Your task to perform on an android device: find which apps use the phone's location Image 0: 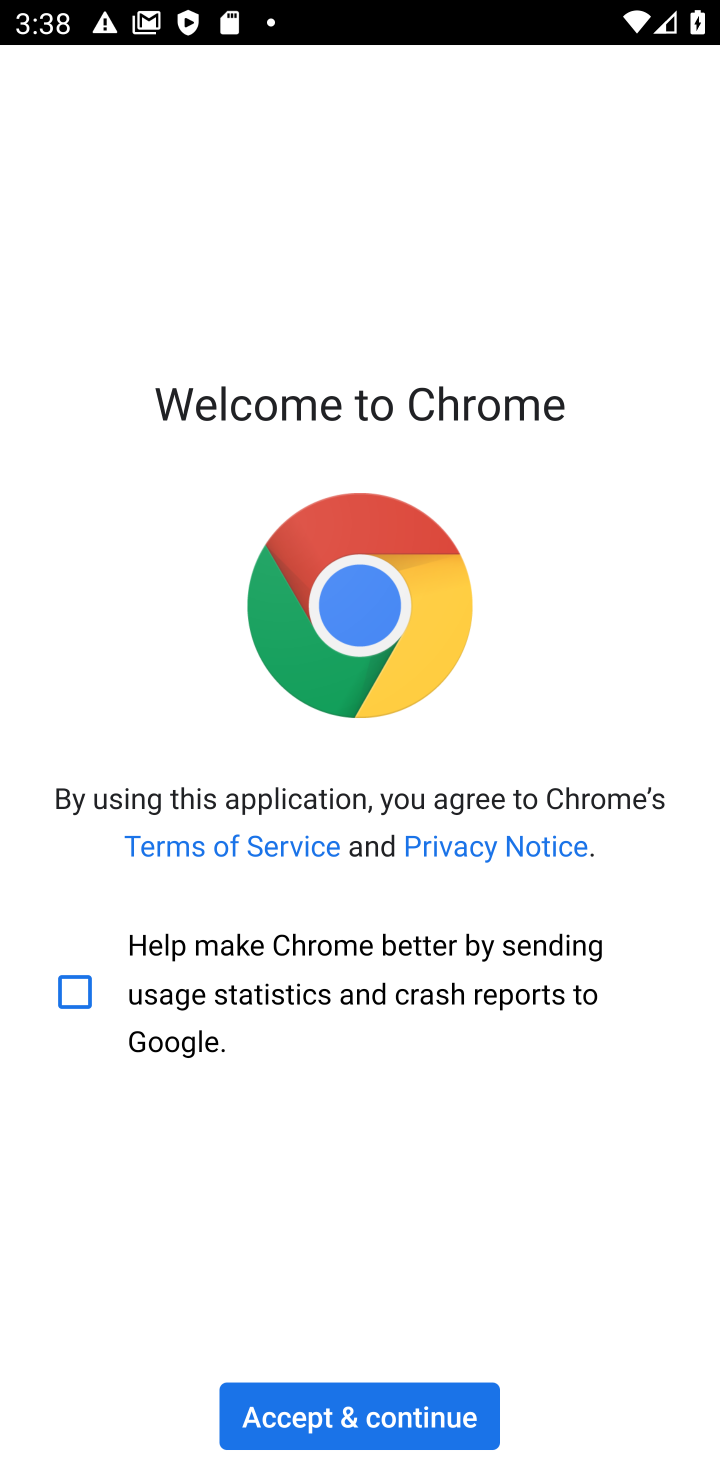
Step 0: press home button
Your task to perform on an android device: find which apps use the phone's location Image 1: 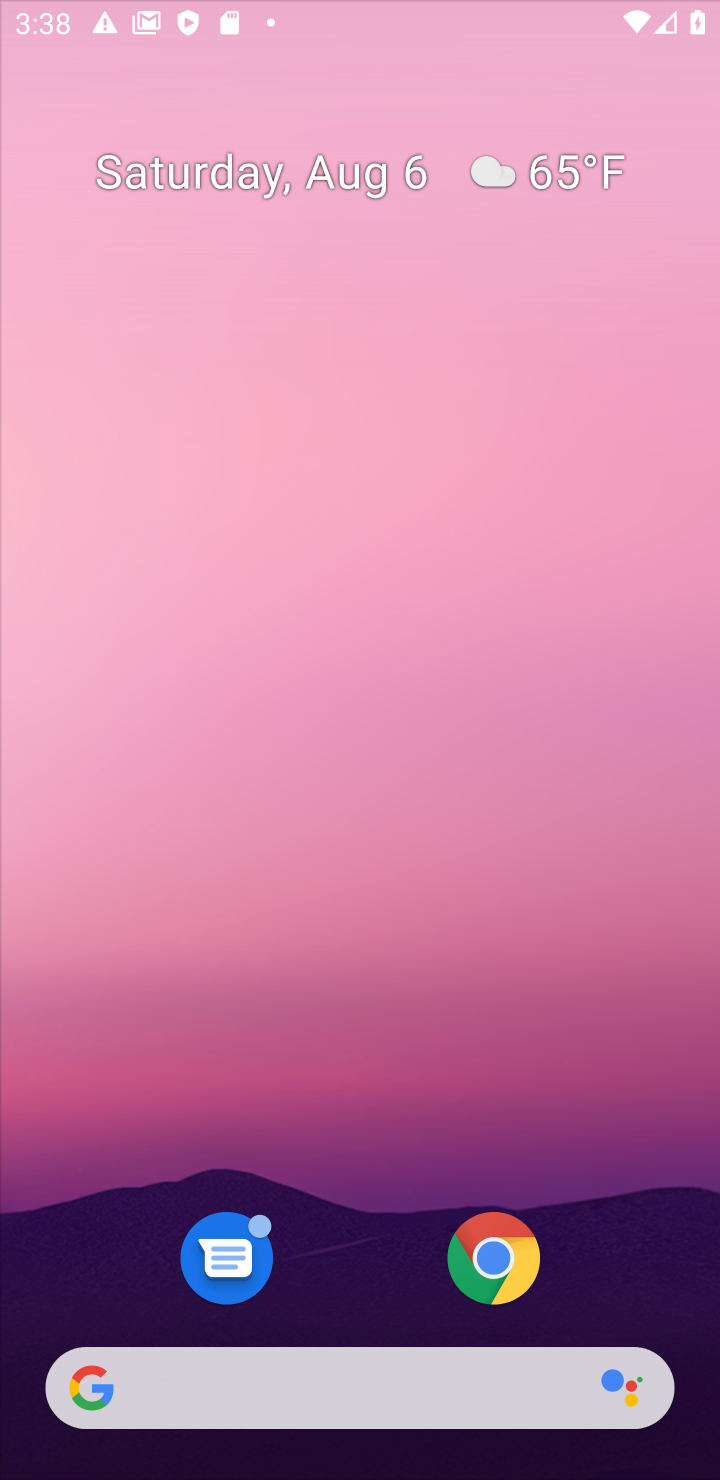
Step 1: press home button
Your task to perform on an android device: find which apps use the phone's location Image 2: 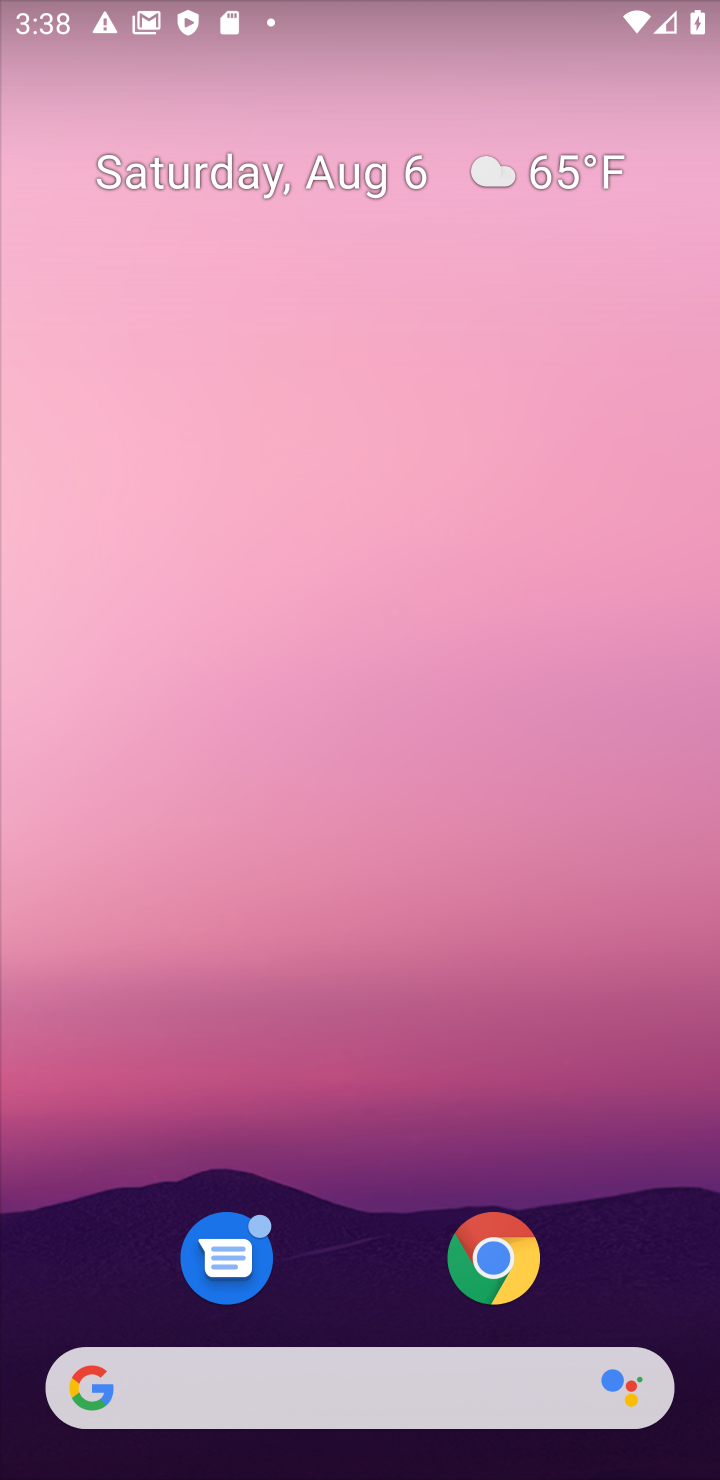
Step 2: drag from (369, 945) to (404, 132)
Your task to perform on an android device: find which apps use the phone's location Image 3: 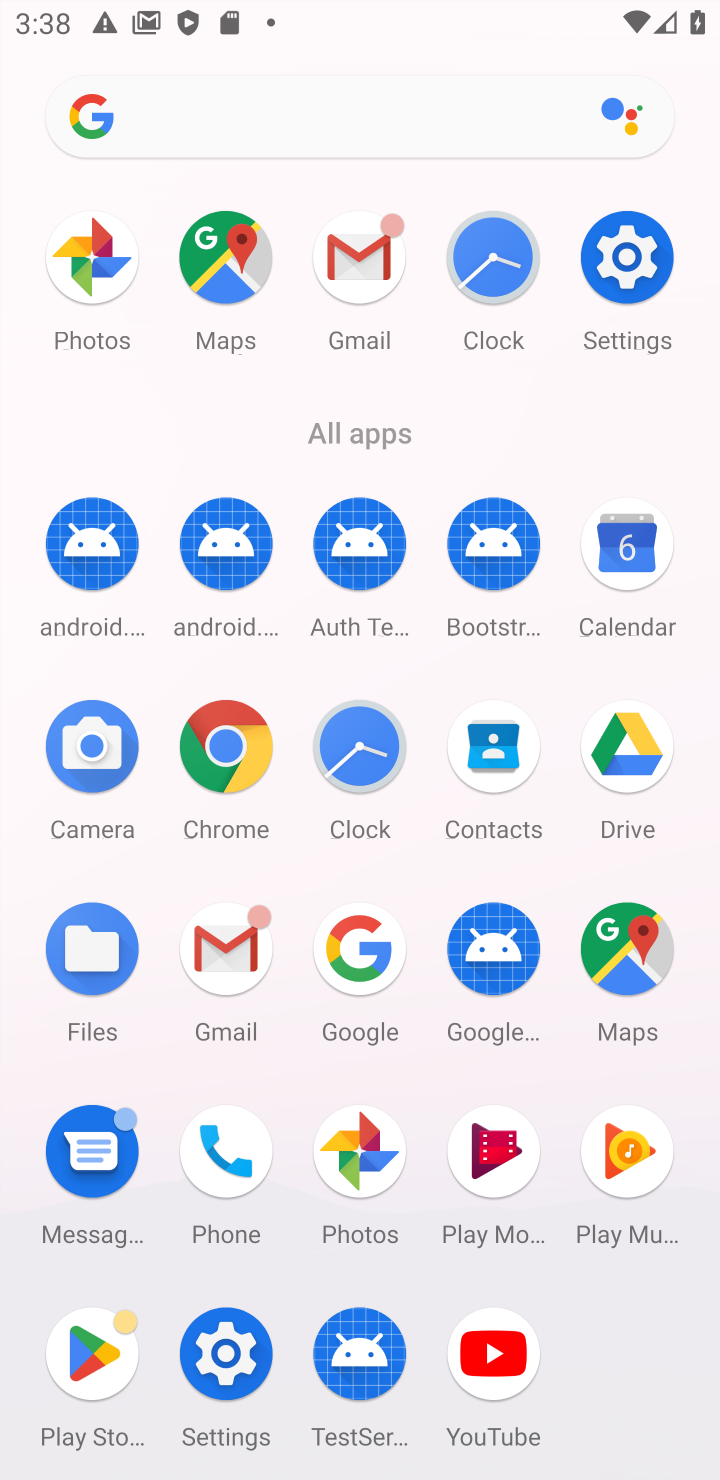
Step 3: click (637, 287)
Your task to perform on an android device: find which apps use the phone's location Image 4: 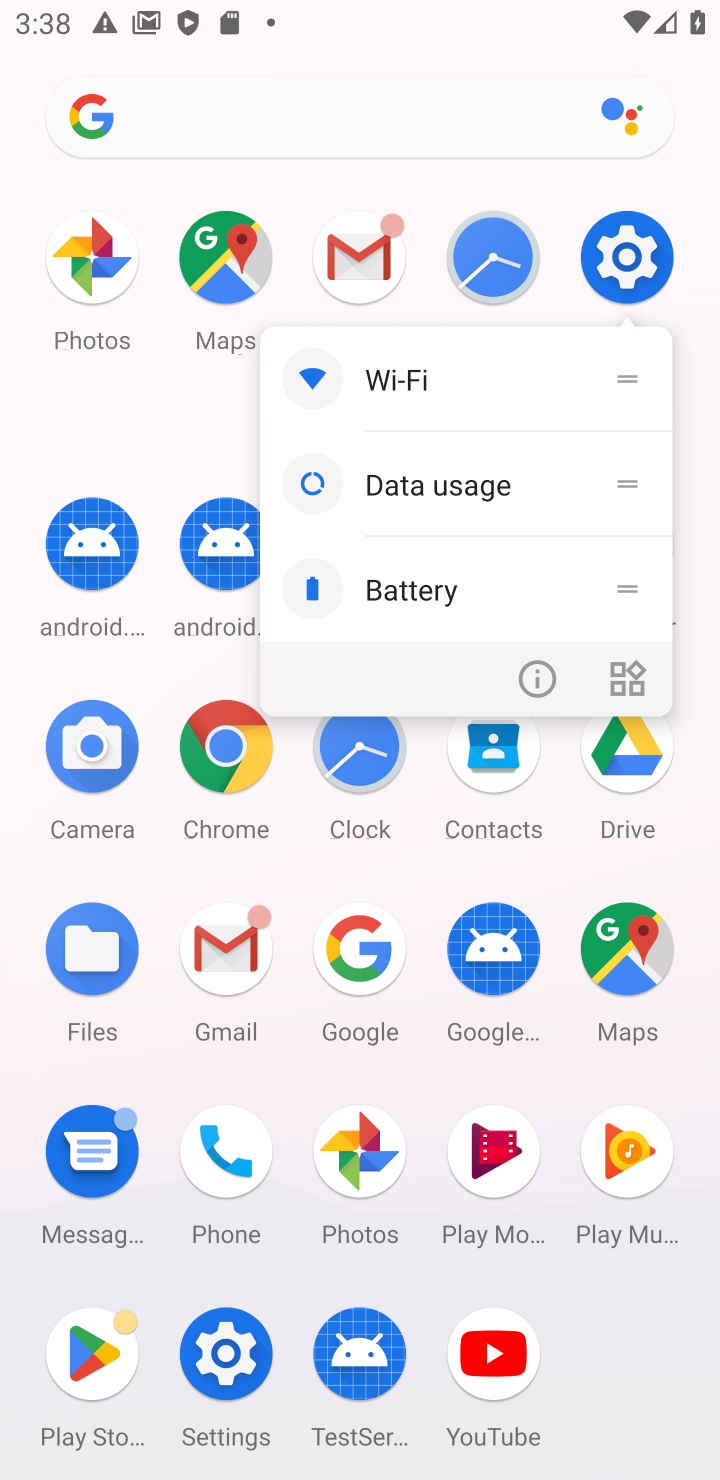
Step 4: click (629, 258)
Your task to perform on an android device: find which apps use the phone's location Image 5: 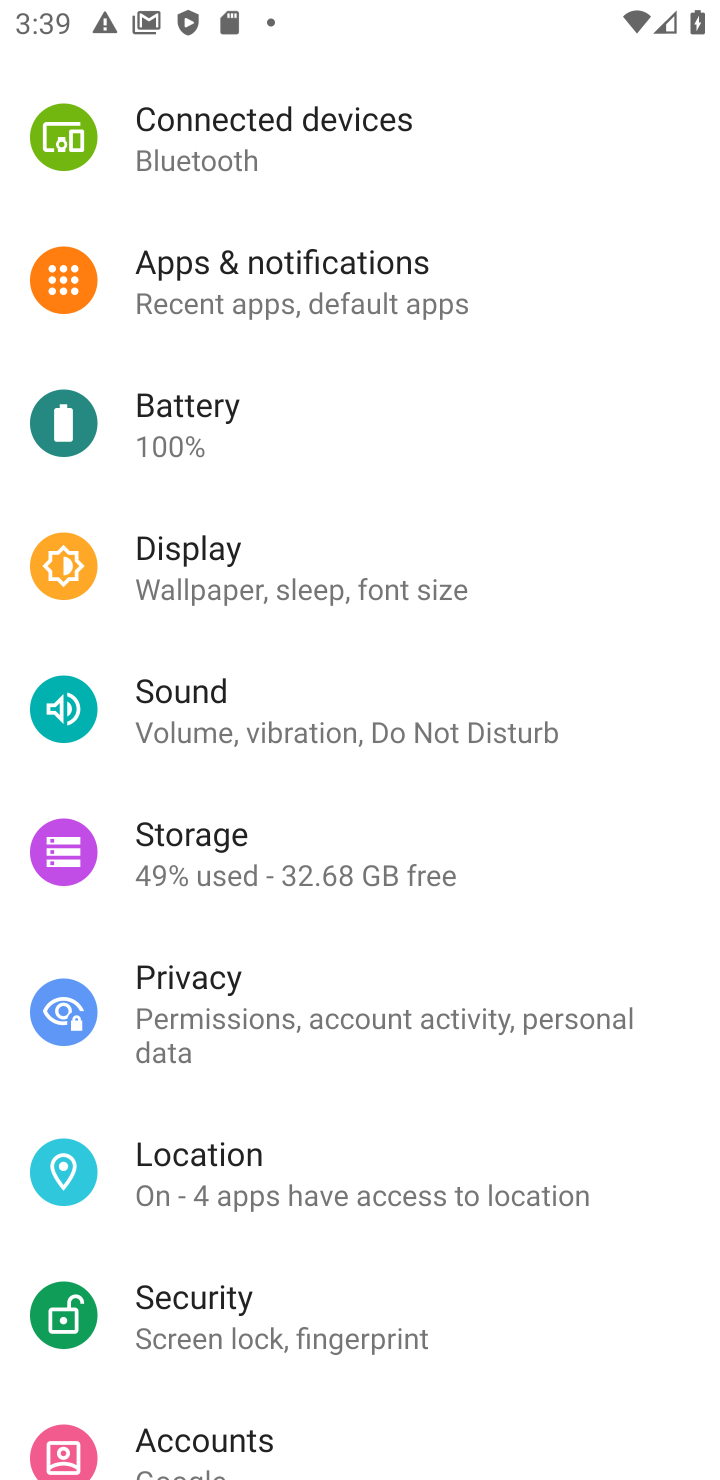
Step 5: click (244, 1191)
Your task to perform on an android device: find which apps use the phone's location Image 6: 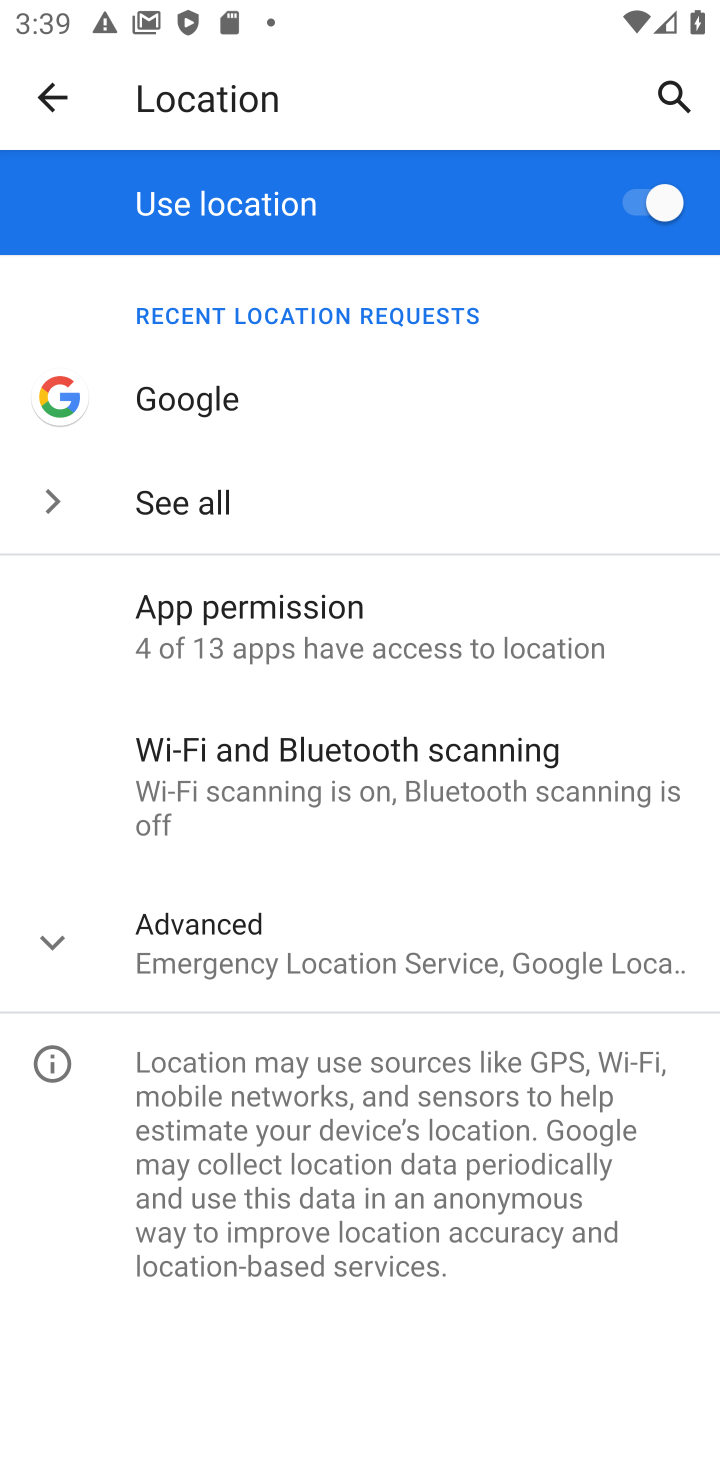
Step 6: click (235, 650)
Your task to perform on an android device: find which apps use the phone's location Image 7: 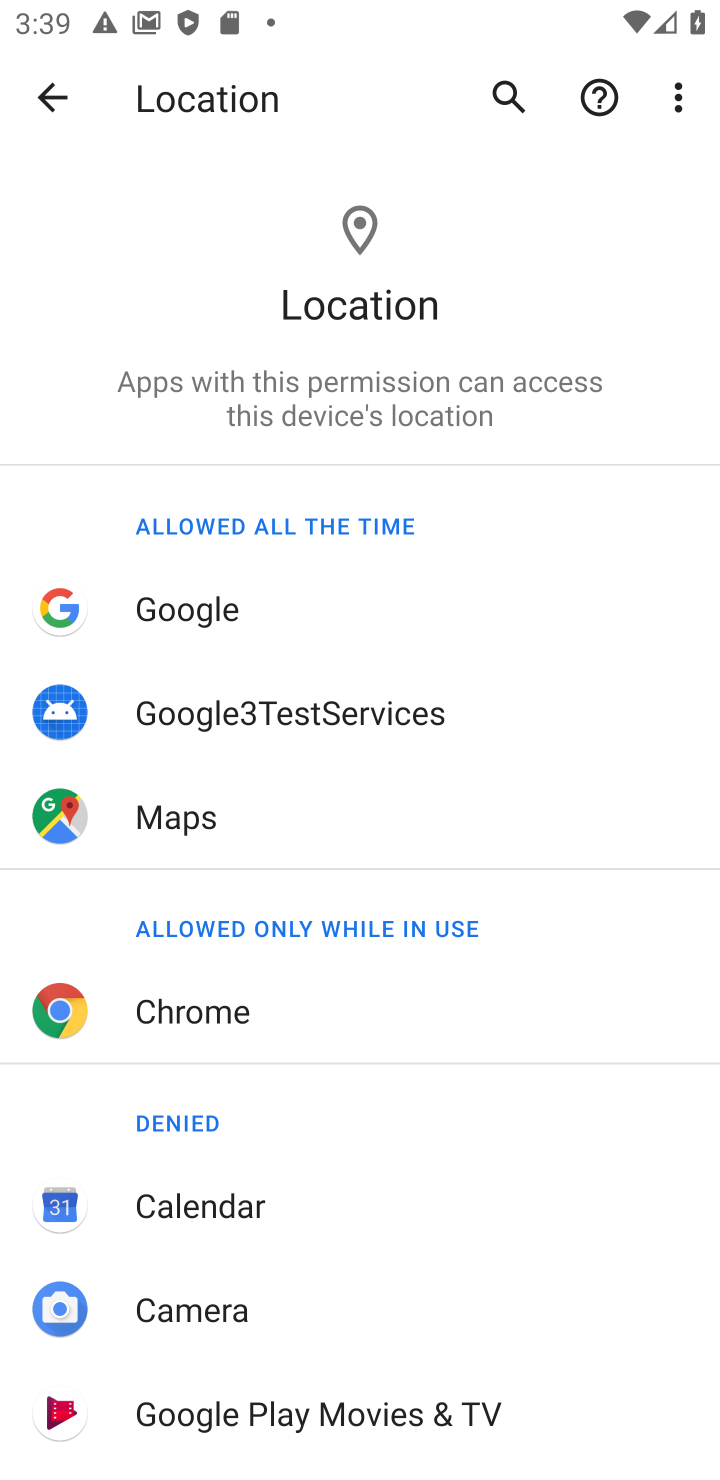
Step 7: task complete